Your task to perform on an android device: Open Reddit.com Image 0: 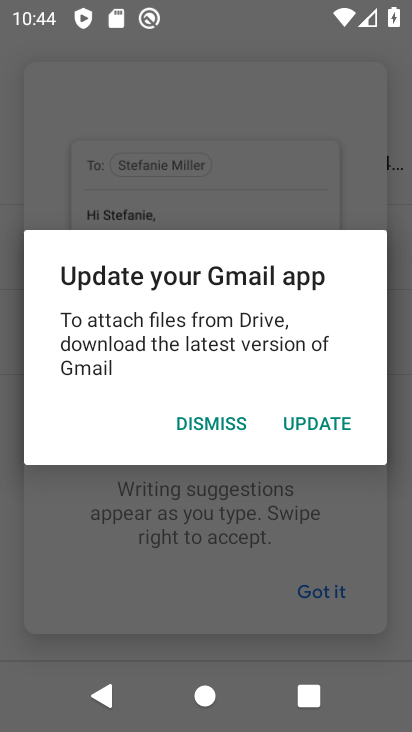
Step 0: press home button
Your task to perform on an android device: Open Reddit.com Image 1: 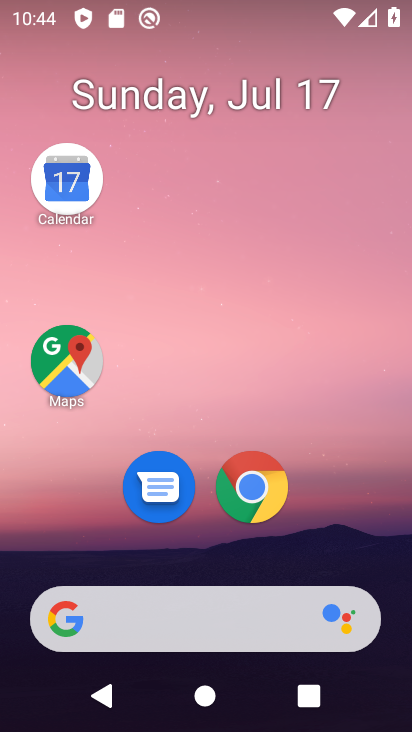
Step 1: click (262, 484)
Your task to perform on an android device: Open Reddit.com Image 2: 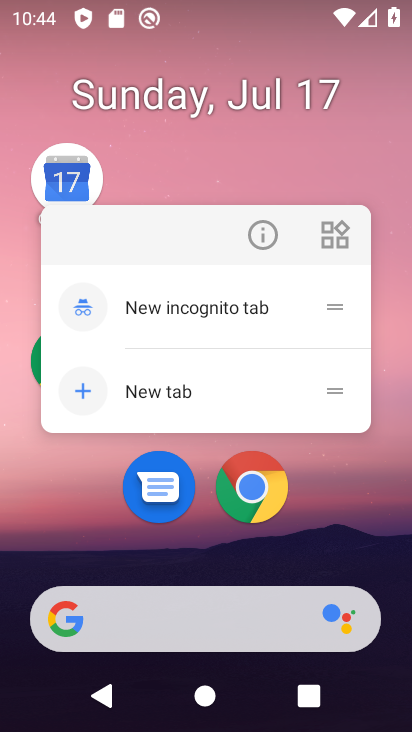
Step 2: click (263, 484)
Your task to perform on an android device: Open Reddit.com Image 3: 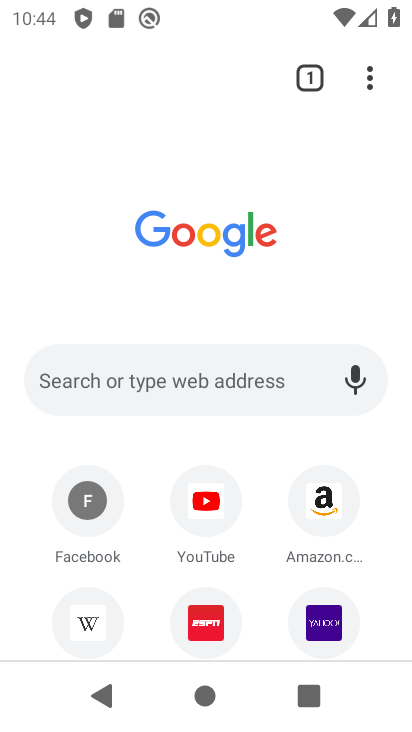
Step 3: click (241, 383)
Your task to perform on an android device: Open Reddit.com Image 4: 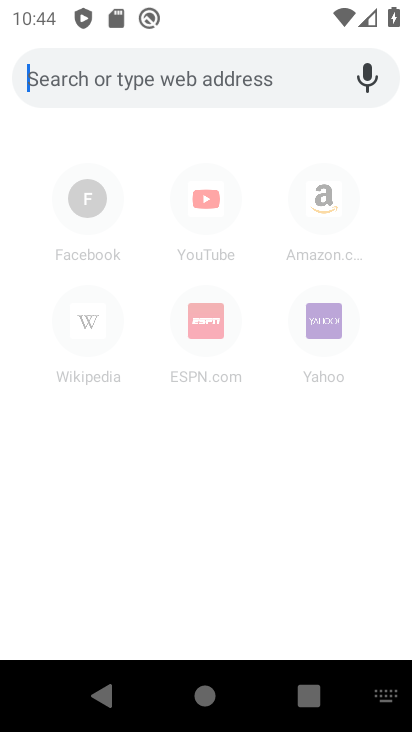
Step 4: type "reddit"
Your task to perform on an android device: Open Reddit.com Image 5: 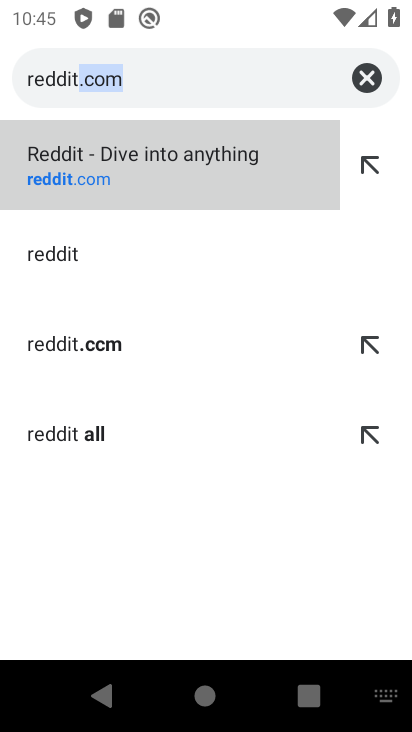
Step 5: click (81, 179)
Your task to perform on an android device: Open Reddit.com Image 6: 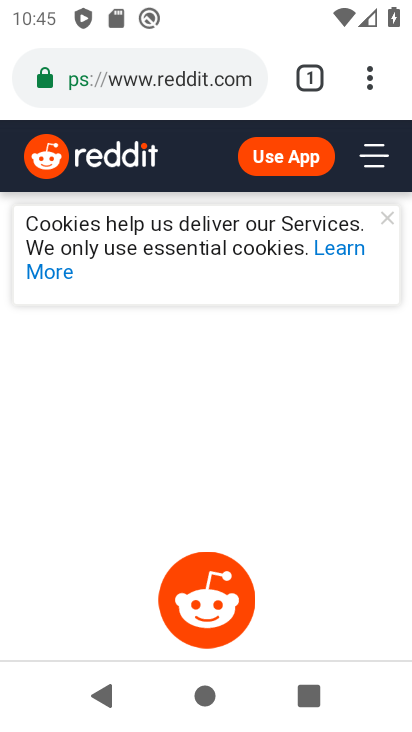
Step 6: task complete